Your task to perform on an android device: delete the emails in spam in the gmail app Image 0: 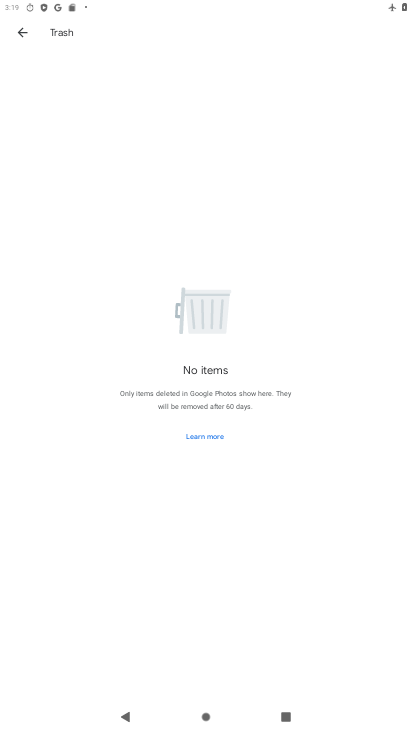
Step 0: press home button
Your task to perform on an android device: delete the emails in spam in the gmail app Image 1: 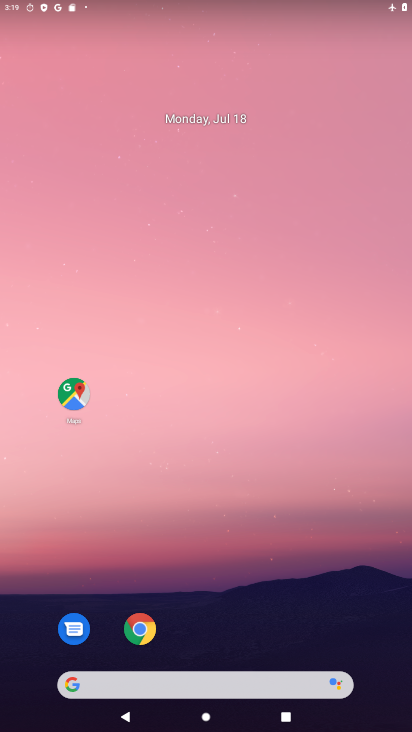
Step 1: drag from (125, 186) to (392, 248)
Your task to perform on an android device: delete the emails in spam in the gmail app Image 2: 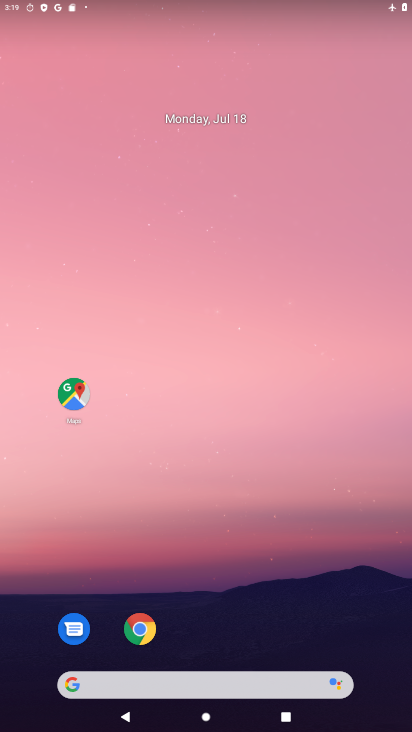
Step 2: drag from (206, 639) to (139, 48)
Your task to perform on an android device: delete the emails in spam in the gmail app Image 3: 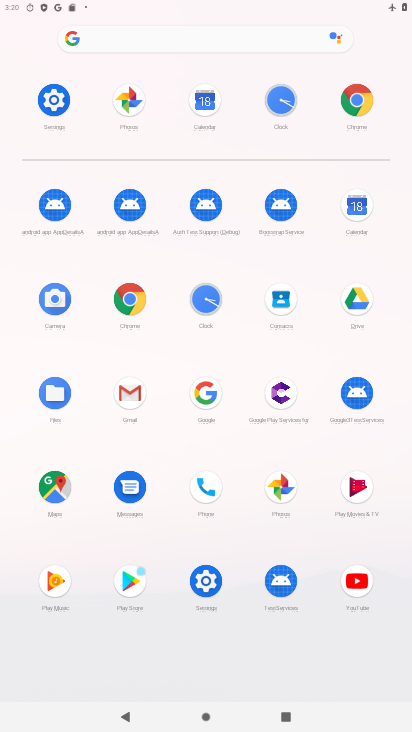
Step 3: click (133, 400)
Your task to perform on an android device: delete the emails in spam in the gmail app Image 4: 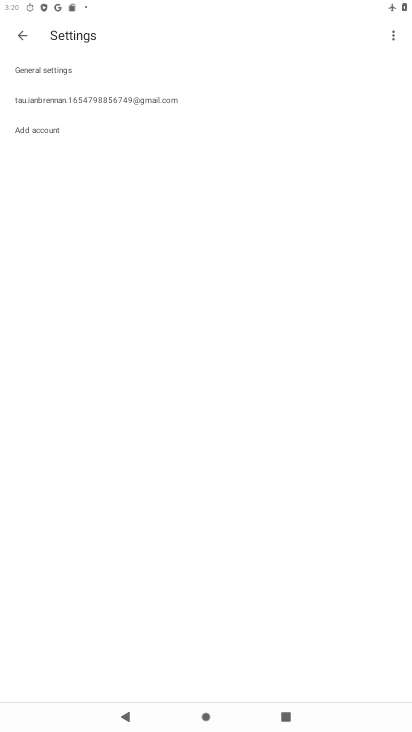
Step 4: click (28, 32)
Your task to perform on an android device: delete the emails in spam in the gmail app Image 5: 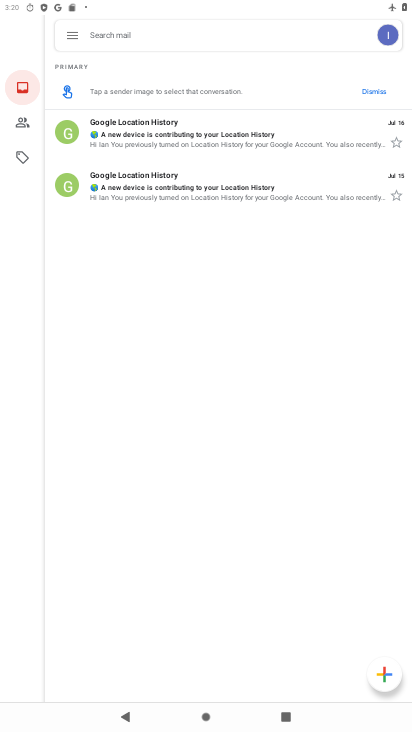
Step 5: click (117, 137)
Your task to perform on an android device: delete the emails in spam in the gmail app Image 6: 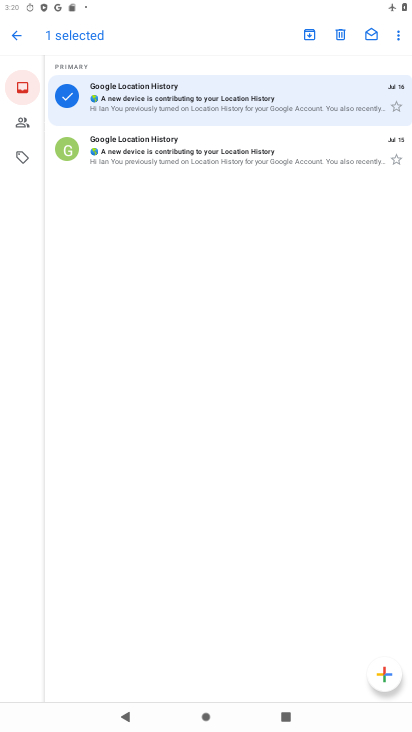
Step 6: click (21, 35)
Your task to perform on an android device: delete the emails in spam in the gmail app Image 7: 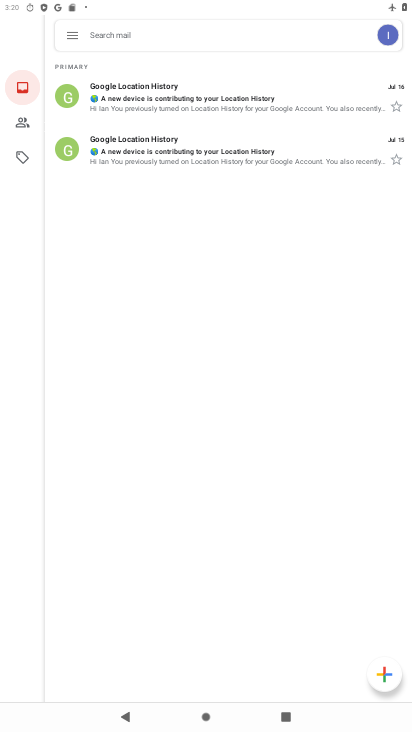
Step 7: click (67, 36)
Your task to perform on an android device: delete the emails in spam in the gmail app Image 8: 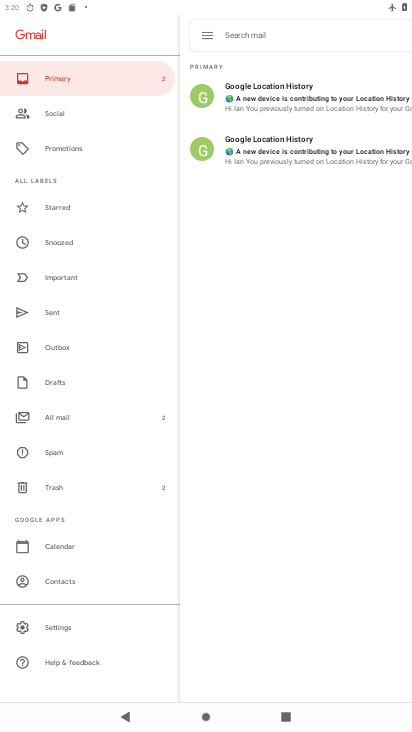
Step 8: click (65, 452)
Your task to perform on an android device: delete the emails in spam in the gmail app Image 9: 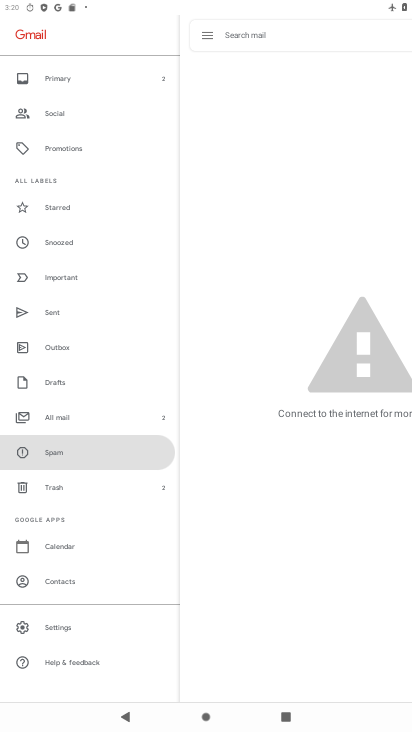
Step 9: task complete